Your task to perform on an android device: Go to network settings Image 0: 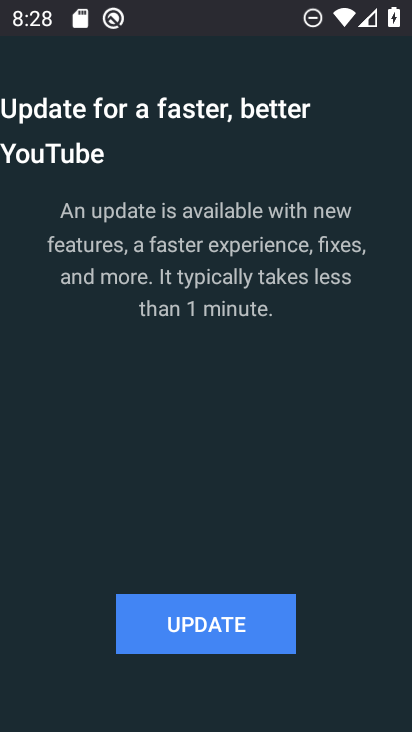
Step 0: press home button
Your task to perform on an android device: Go to network settings Image 1: 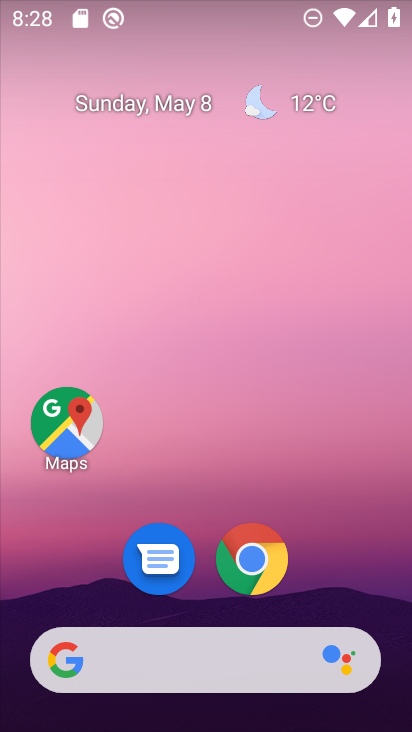
Step 1: drag from (333, 596) to (300, 9)
Your task to perform on an android device: Go to network settings Image 2: 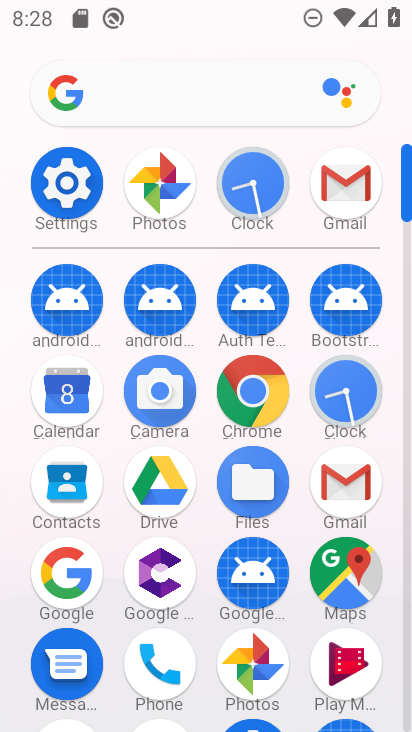
Step 2: click (57, 192)
Your task to perform on an android device: Go to network settings Image 3: 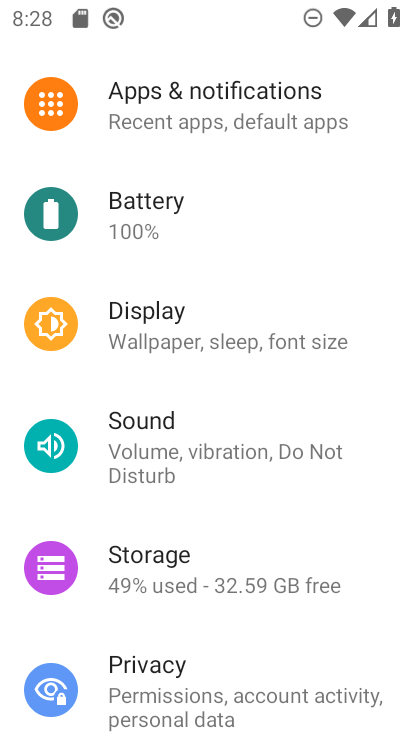
Step 3: drag from (331, 181) to (343, 389)
Your task to perform on an android device: Go to network settings Image 4: 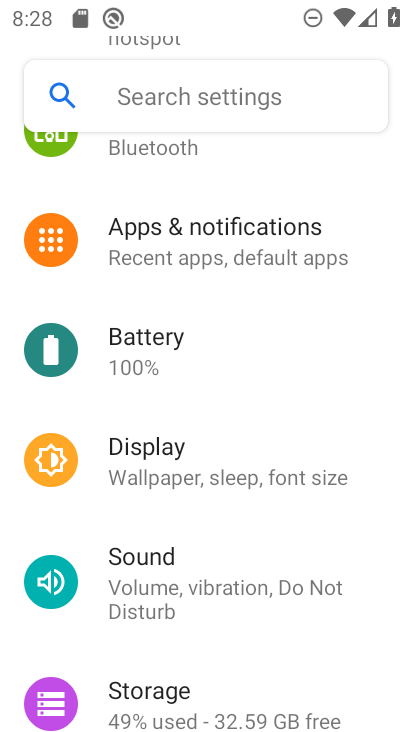
Step 4: drag from (318, 242) to (315, 582)
Your task to perform on an android device: Go to network settings Image 5: 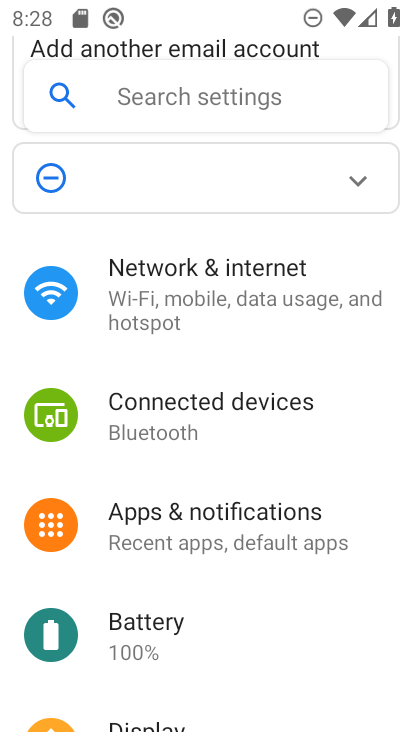
Step 5: click (176, 303)
Your task to perform on an android device: Go to network settings Image 6: 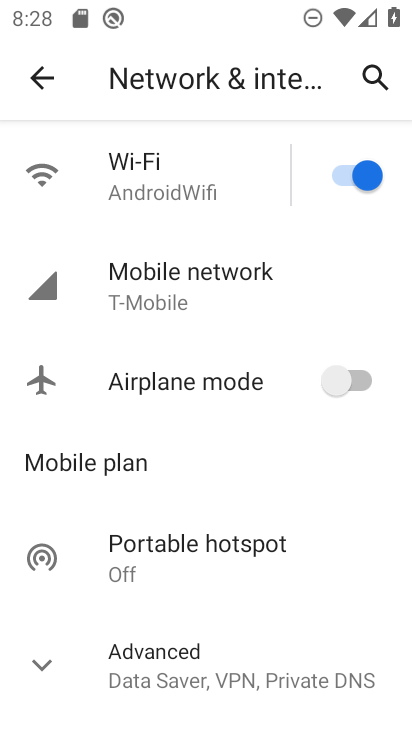
Step 6: click (175, 307)
Your task to perform on an android device: Go to network settings Image 7: 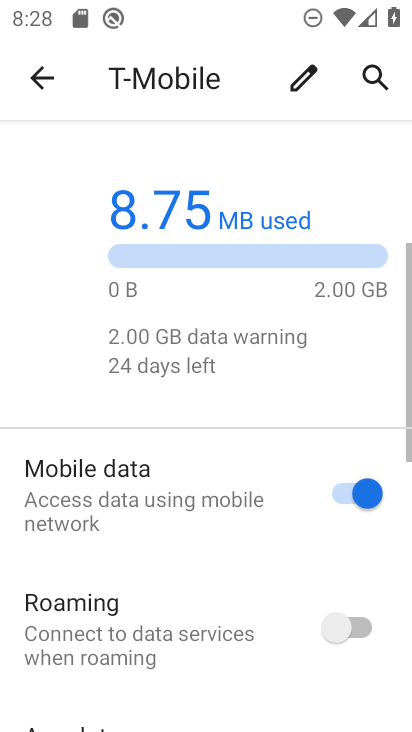
Step 7: drag from (239, 597) to (190, 68)
Your task to perform on an android device: Go to network settings Image 8: 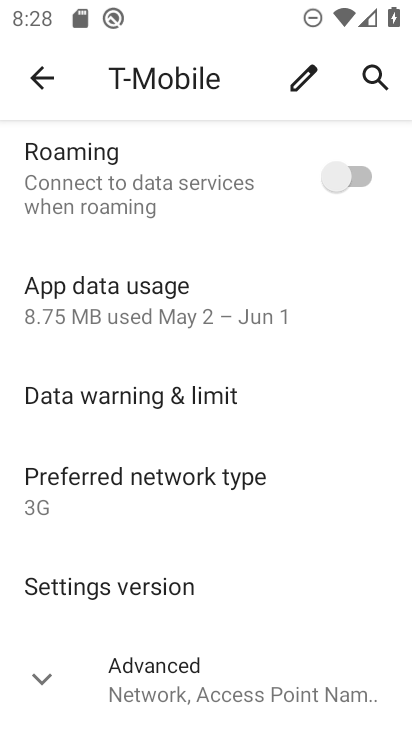
Step 8: click (49, 689)
Your task to perform on an android device: Go to network settings Image 9: 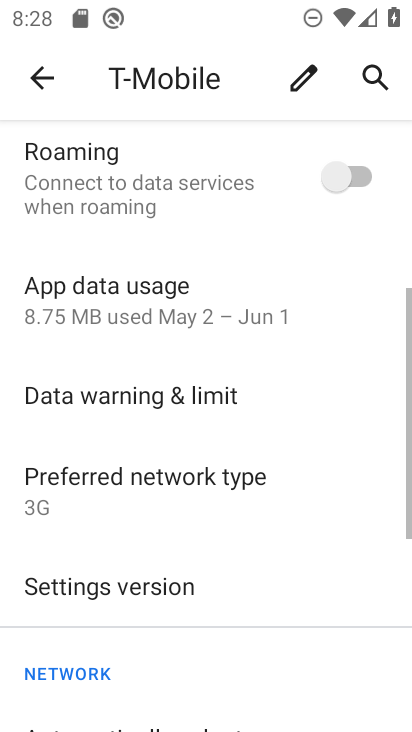
Step 9: task complete